Your task to perform on an android device: Open the map Image 0: 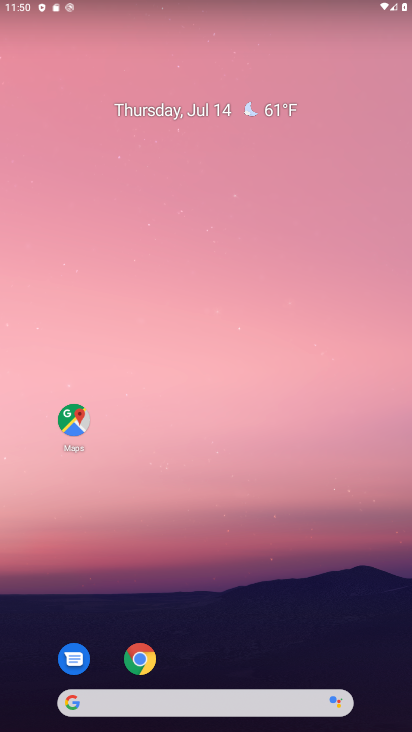
Step 0: click (70, 424)
Your task to perform on an android device: Open the map Image 1: 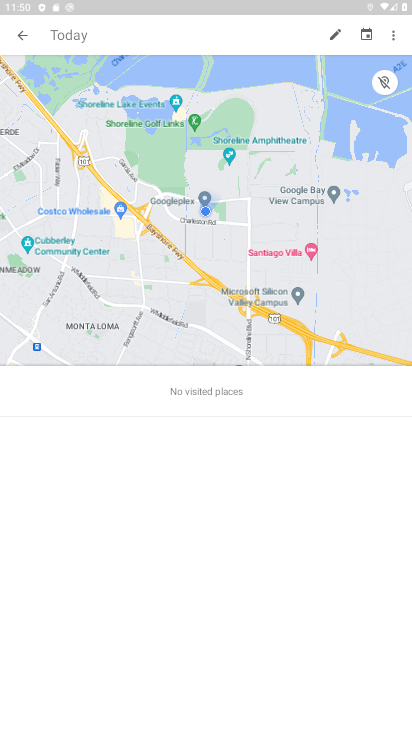
Step 1: click (23, 29)
Your task to perform on an android device: Open the map Image 2: 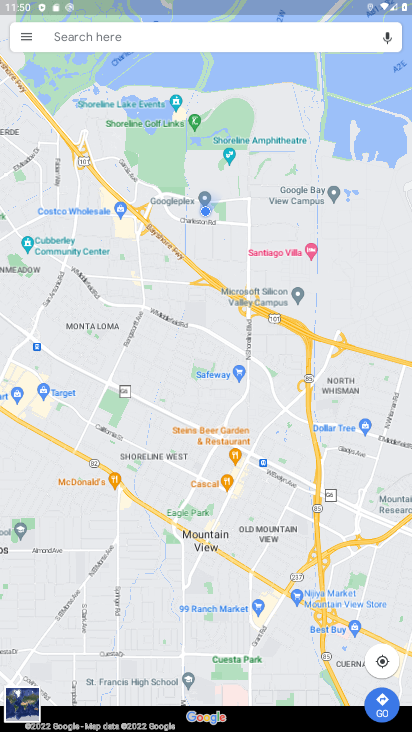
Step 2: task complete